Your task to perform on an android device: set the stopwatch Image 0: 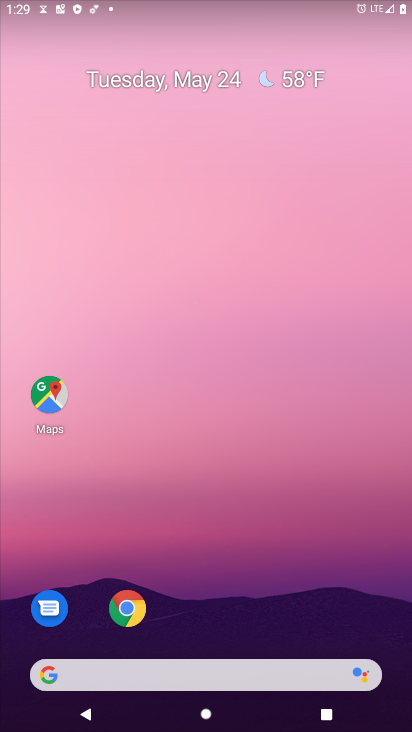
Step 0: drag from (325, 663) to (174, 136)
Your task to perform on an android device: set the stopwatch Image 1: 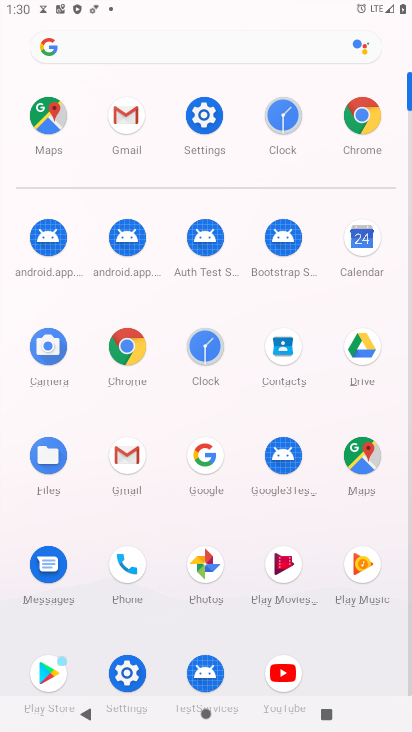
Step 1: click (289, 116)
Your task to perform on an android device: set the stopwatch Image 2: 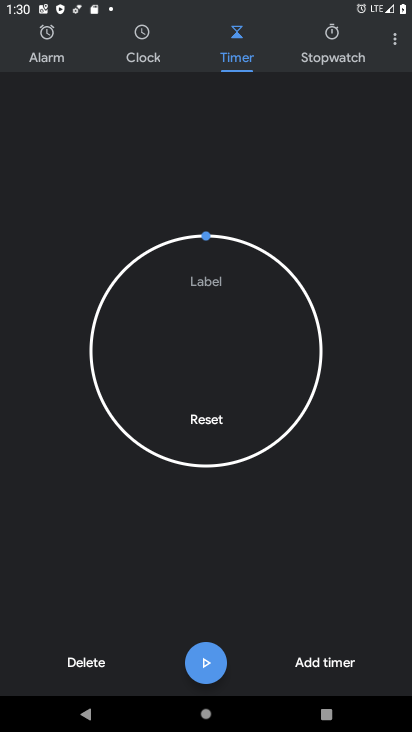
Step 2: click (323, 54)
Your task to perform on an android device: set the stopwatch Image 3: 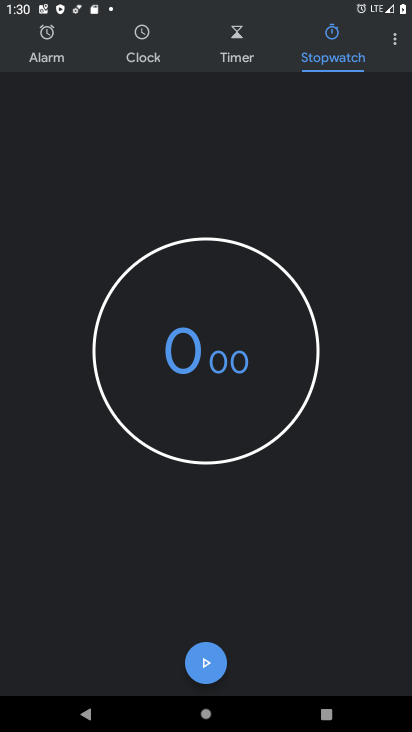
Step 3: task complete